Your task to perform on an android device: Empty the shopping cart on target. Search for bose soundsport free on target, select the first entry, and add it to the cart. Image 0: 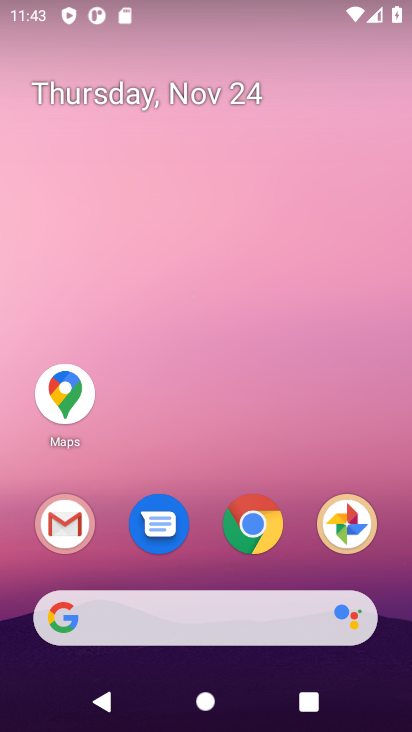
Step 0: click (266, 514)
Your task to perform on an android device: Empty the shopping cart on target. Search for bose soundsport free on target, select the first entry, and add it to the cart. Image 1: 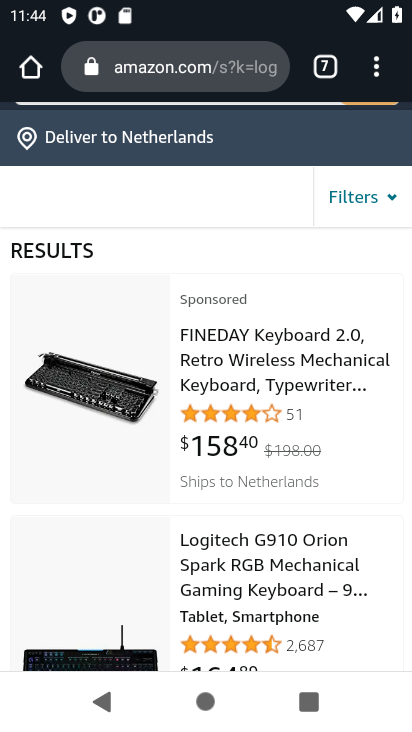
Step 1: click (178, 74)
Your task to perform on an android device: Empty the shopping cart on target. Search for bose soundsport free on target, select the first entry, and add it to the cart. Image 2: 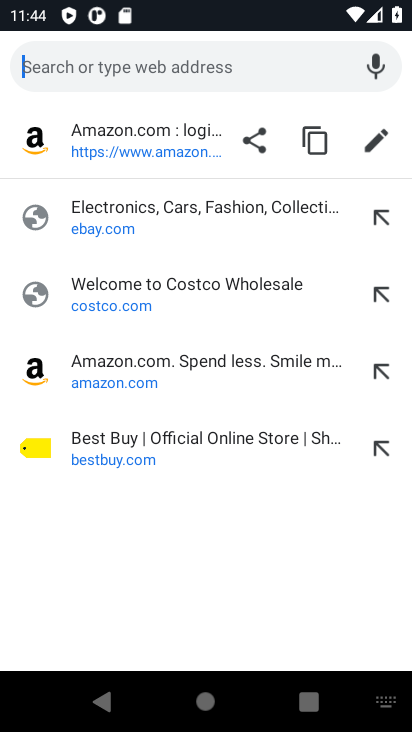
Step 2: type "target.com"
Your task to perform on an android device: Empty the shopping cart on target. Search for bose soundsport free on target, select the first entry, and add it to the cart. Image 3: 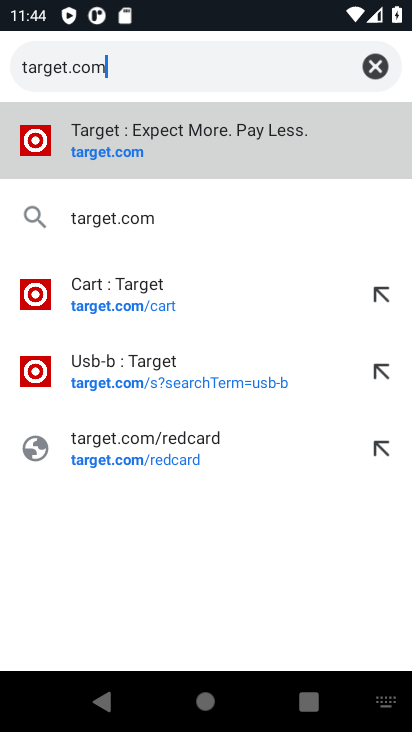
Step 3: click (122, 155)
Your task to perform on an android device: Empty the shopping cart on target. Search for bose soundsport free on target, select the first entry, and add it to the cart. Image 4: 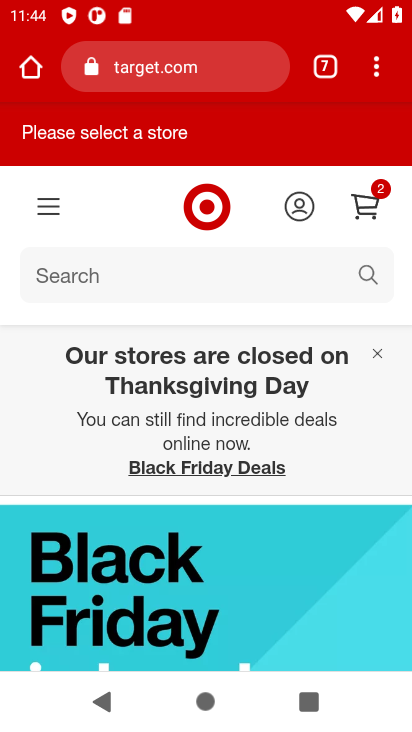
Step 4: click (365, 207)
Your task to perform on an android device: Empty the shopping cart on target. Search for bose soundsport free on target, select the first entry, and add it to the cart. Image 5: 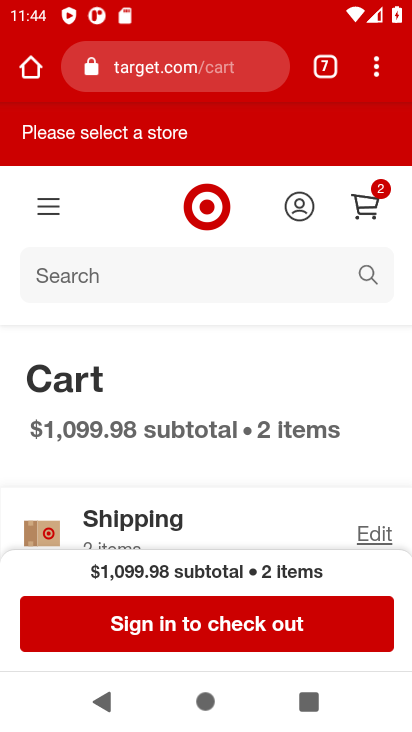
Step 5: drag from (186, 465) to (177, 219)
Your task to perform on an android device: Empty the shopping cart on target. Search for bose soundsport free on target, select the first entry, and add it to the cart. Image 6: 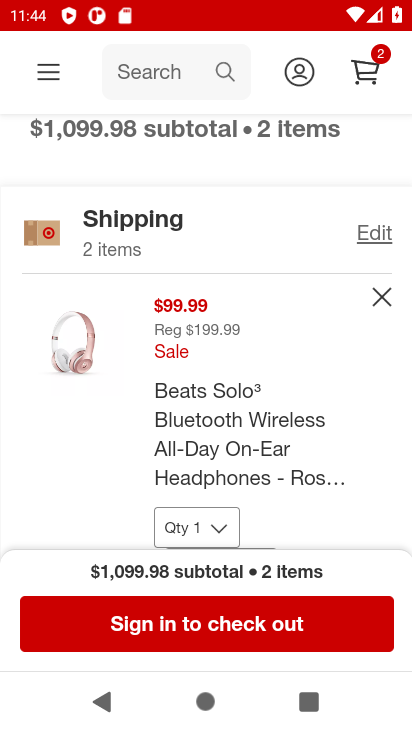
Step 6: click (389, 306)
Your task to perform on an android device: Empty the shopping cart on target. Search for bose soundsport free on target, select the first entry, and add it to the cart. Image 7: 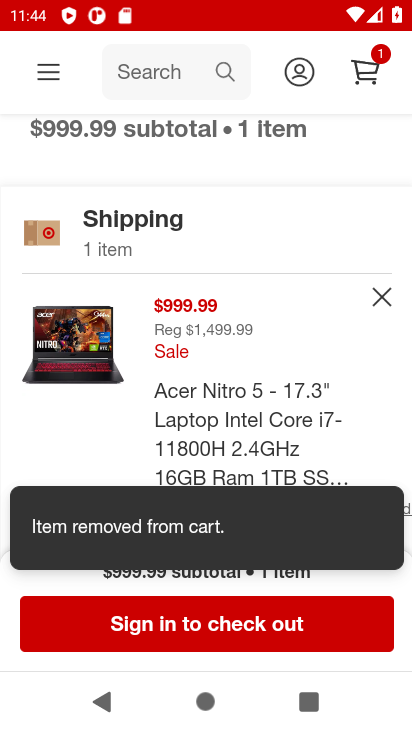
Step 7: click (377, 298)
Your task to perform on an android device: Empty the shopping cart on target. Search for bose soundsport free on target, select the first entry, and add it to the cart. Image 8: 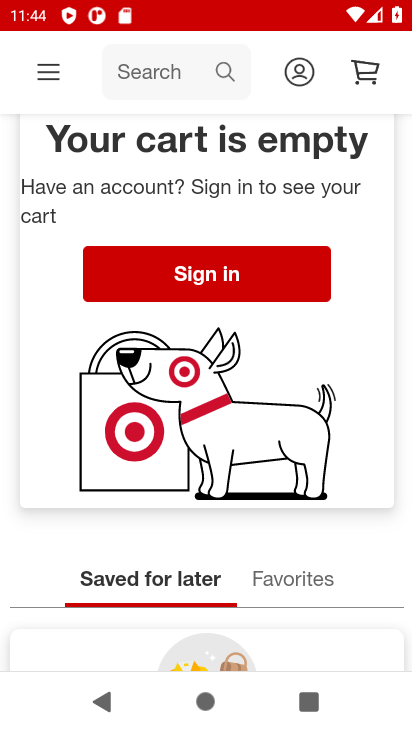
Step 8: drag from (359, 275) to (380, 581)
Your task to perform on an android device: Empty the shopping cart on target. Search for bose soundsport free on target, select the first entry, and add it to the cart. Image 9: 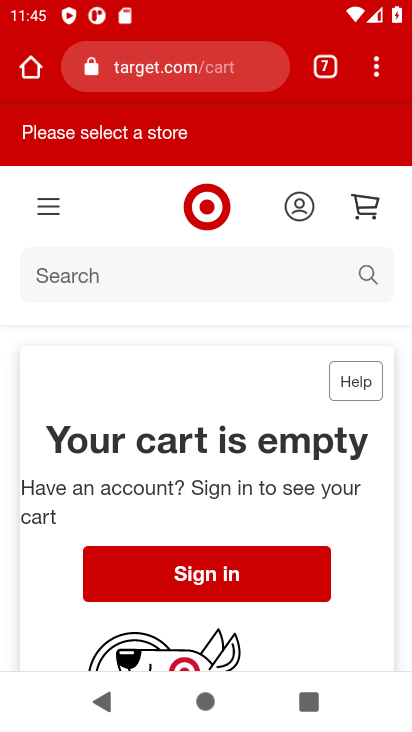
Step 9: click (368, 277)
Your task to perform on an android device: Empty the shopping cart on target. Search for bose soundsport free on target, select the first entry, and add it to the cart. Image 10: 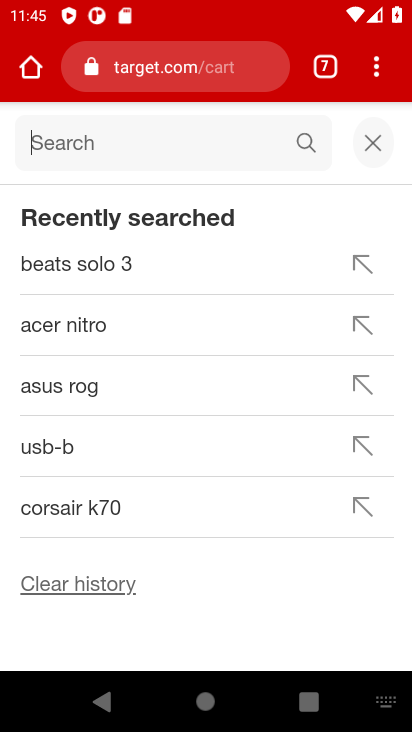
Step 10: type "bose soundsport free"
Your task to perform on an android device: Empty the shopping cart on target. Search for bose soundsport free on target, select the first entry, and add it to the cart. Image 11: 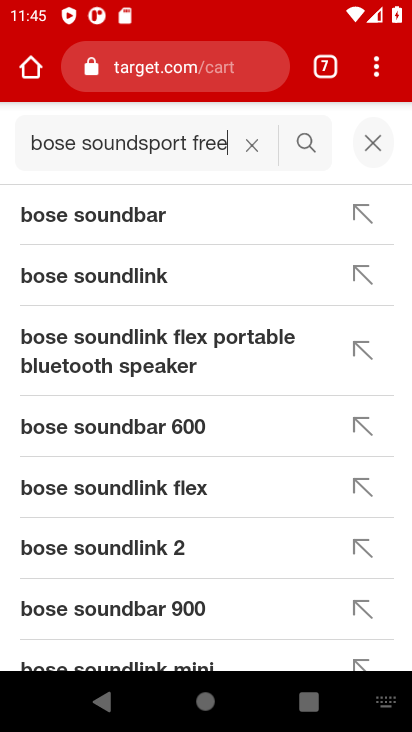
Step 11: click (293, 146)
Your task to perform on an android device: Empty the shopping cart on target. Search for bose soundsport free on target, select the first entry, and add it to the cart. Image 12: 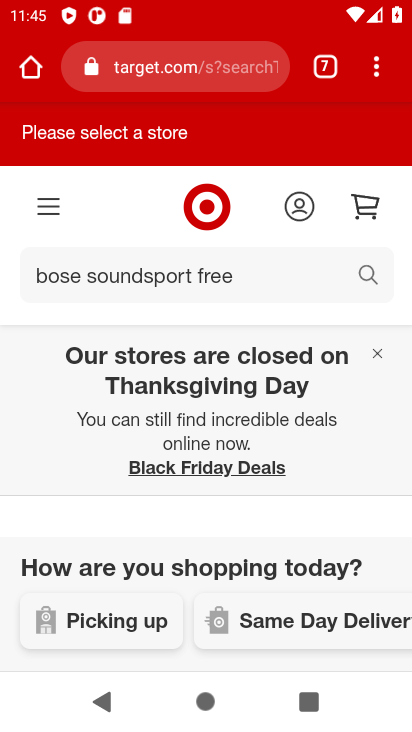
Step 12: task complete